Your task to perform on an android device: Search for seafood restaurants on Google Maps Image 0: 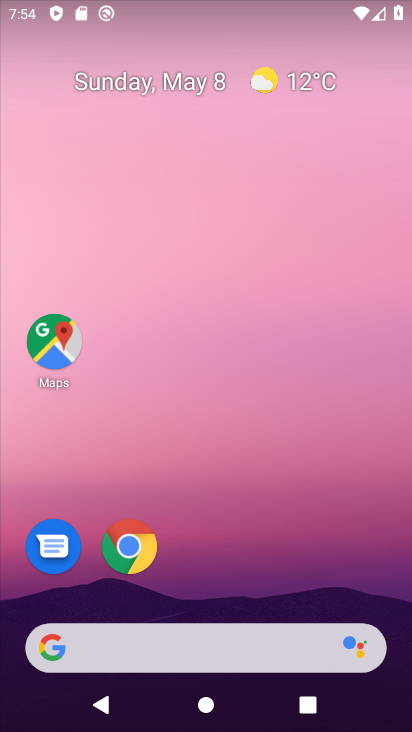
Step 0: click (45, 330)
Your task to perform on an android device: Search for seafood restaurants on Google Maps Image 1: 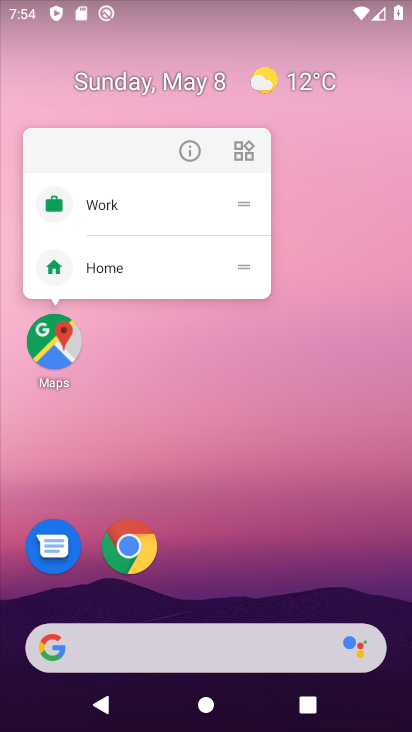
Step 1: click (48, 335)
Your task to perform on an android device: Search for seafood restaurants on Google Maps Image 2: 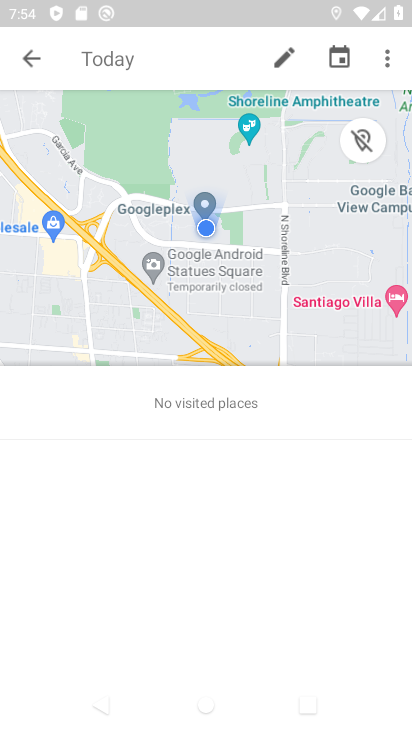
Step 2: click (167, 61)
Your task to perform on an android device: Search for seafood restaurants on Google Maps Image 3: 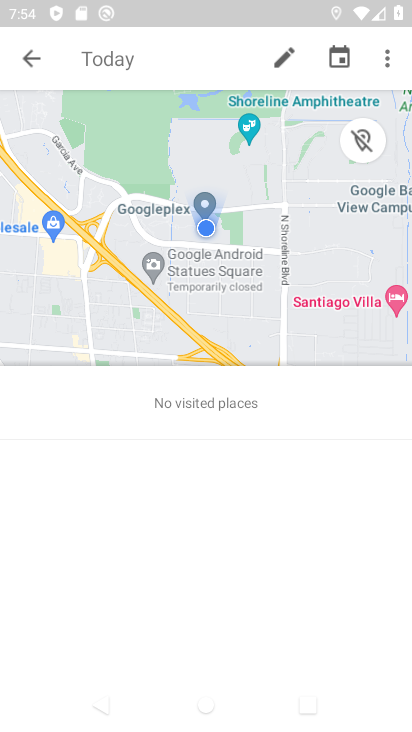
Step 3: click (158, 50)
Your task to perform on an android device: Search for seafood restaurants on Google Maps Image 4: 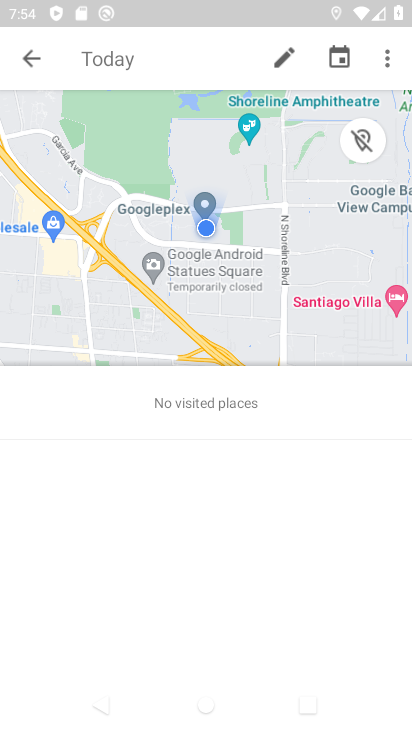
Step 4: click (140, 57)
Your task to perform on an android device: Search for seafood restaurants on Google Maps Image 5: 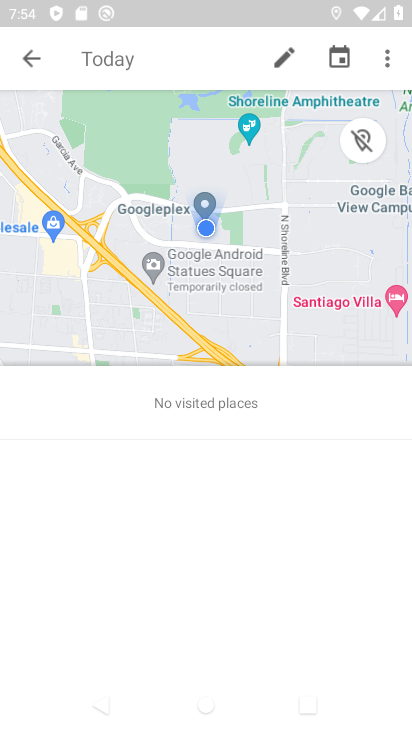
Step 5: click (23, 67)
Your task to perform on an android device: Search for seafood restaurants on Google Maps Image 6: 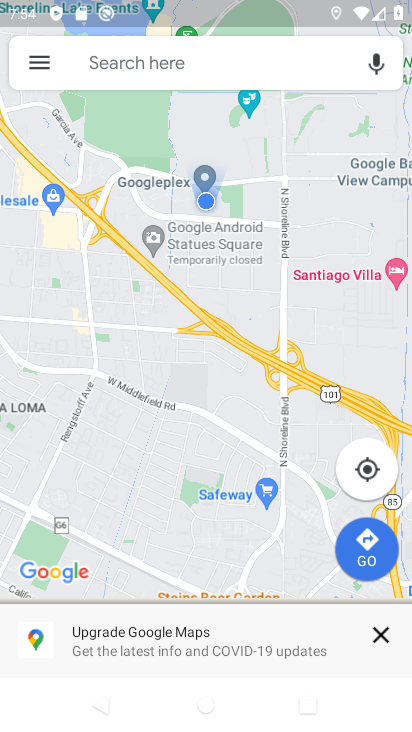
Step 6: click (92, 65)
Your task to perform on an android device: Search for seafood restaurants on Google Maps Image 7: 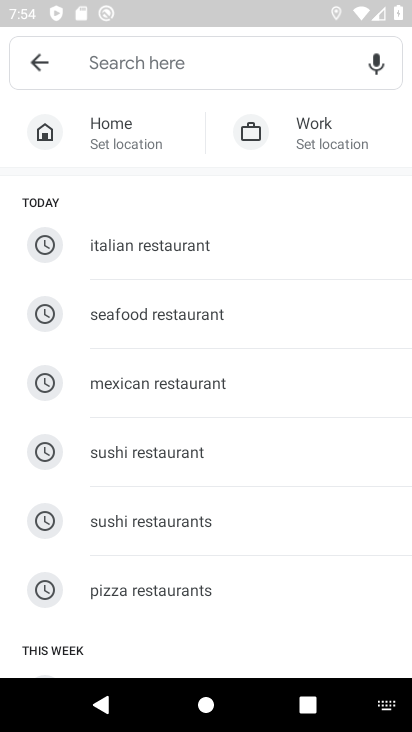
Step 7: type "seafood restaurants"
Your task to perform on an android device: Search for seafood restaurants on Google Maps Image 8: 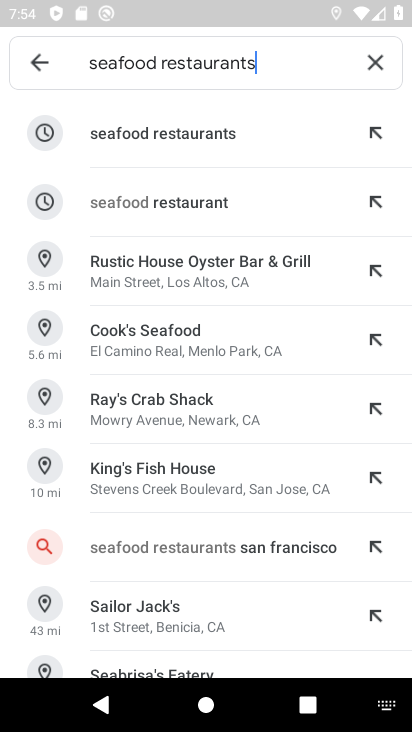
Step 8: click (133, 128)
Your task to perform on an android device: Search for seafood restaurants on Google Maps Image 9: 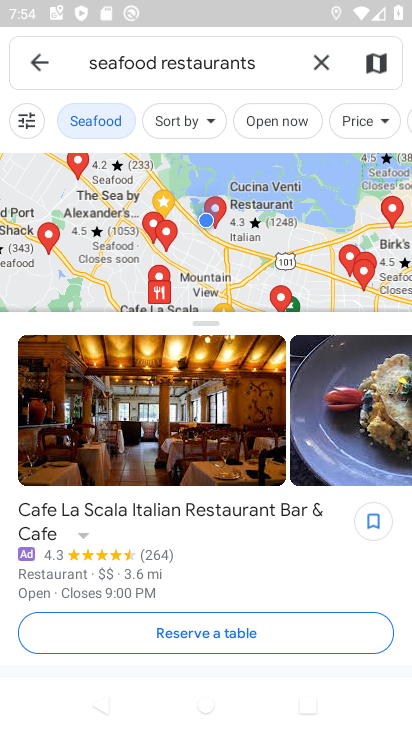
Step 9: task complete